Your task to perform on an android device: Open Yahoo.com Image 0: 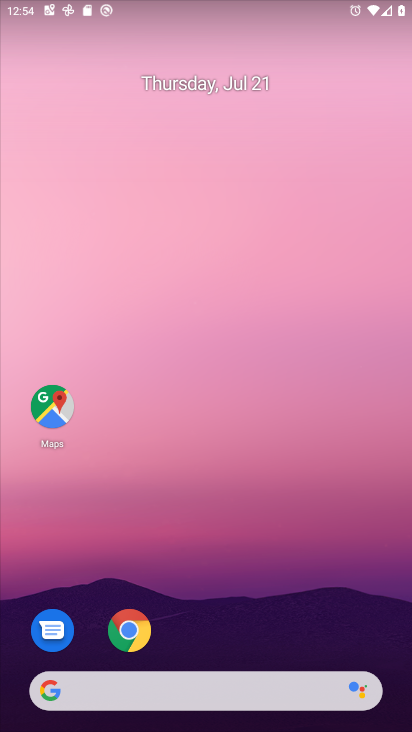
Step 0: drag from (199, 630) to (228, 166)
Your task to perform on an android device: Open Yahoo.com Image 1: 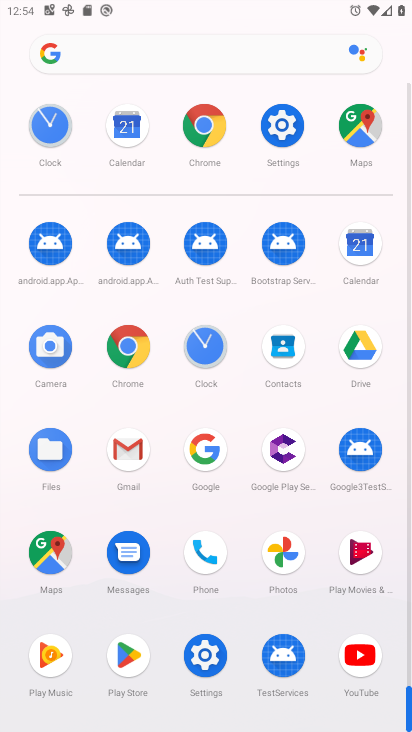
Step 1: click (142, 55)
Your task to perform on an android device: Open Yahoo.com Image 2: 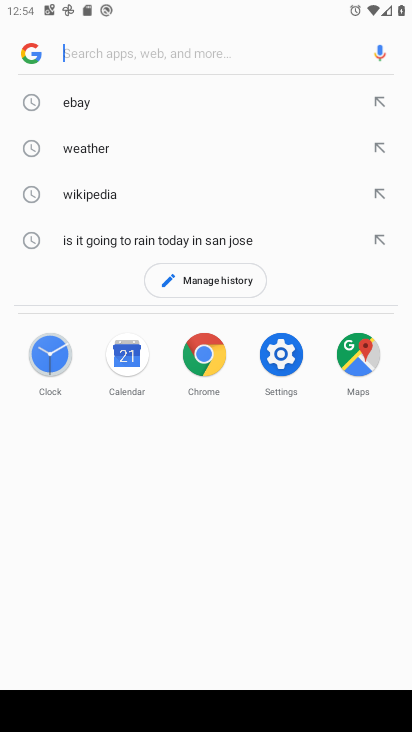
Step 2: type "yahoo.com"
Your task to perform on an android device: Open Yahoo.com Image 3: 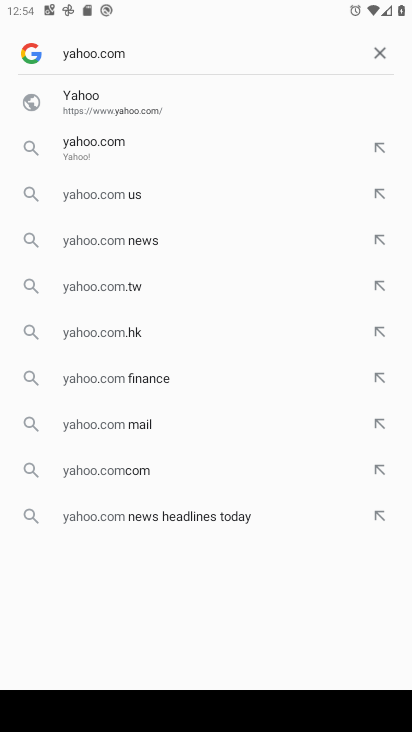
Step 3: click (98, 144)
Your task to perform on an android device: Open Yahoo.com Image 4: 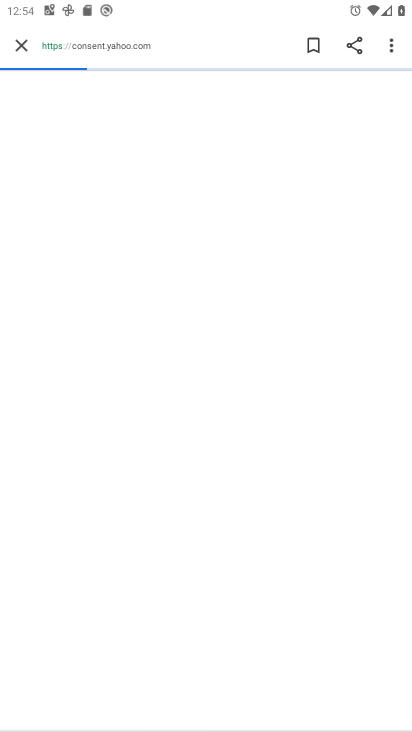
Step 4: task complete